Your task to perform on an android device: Open network settings Image 0: 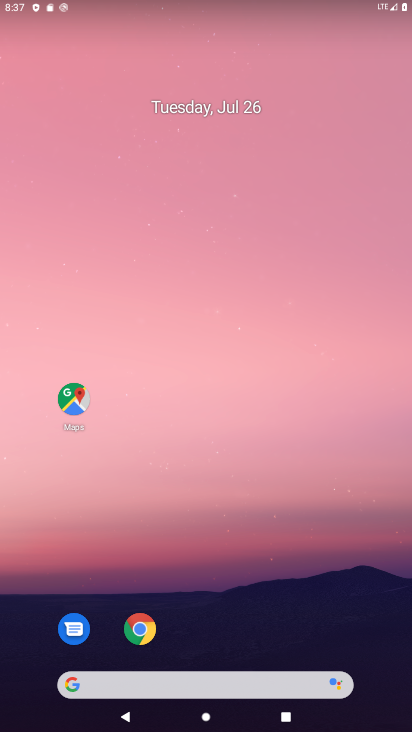
Step 0: drag from (211, 647) to (191, 117)
Your task to perform on an android device: Open network settings Image 1: 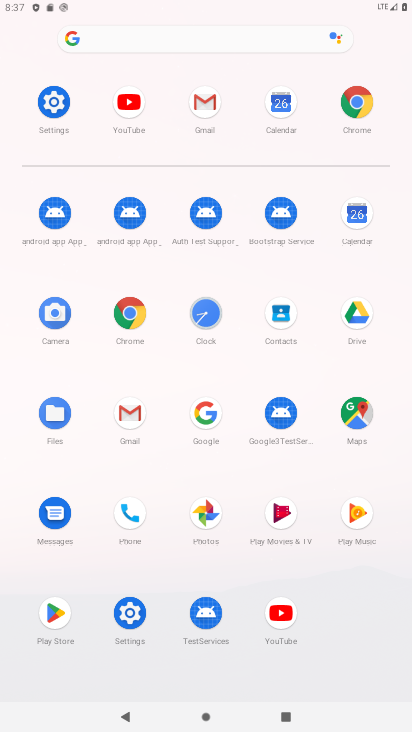
Step 1: click (54, 109)
Your task to perform on an android device: Open network settings Image 2: 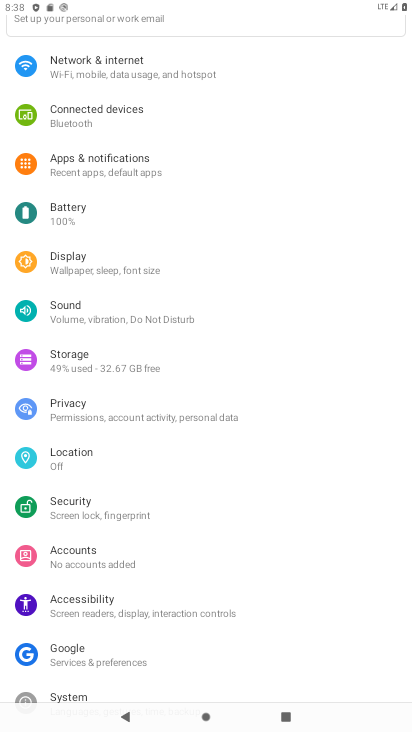
Step 2: click (157, 70)
Your task to perform on an android device: Open network settings Image 3: 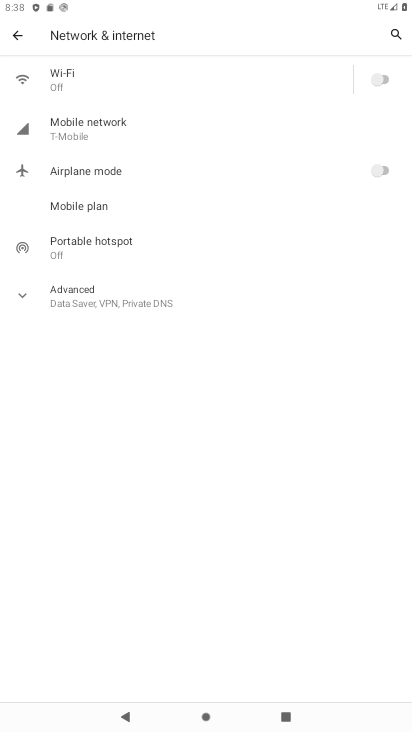
Step 3: click (101, 131)
Your task to perform on an android device: Open network settings Image 4: 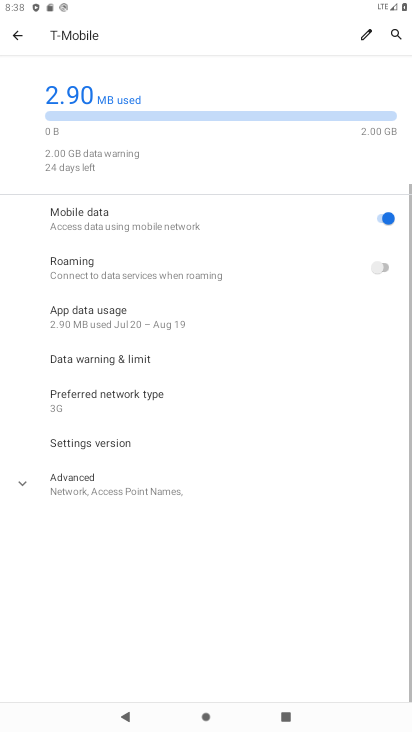
Step 4: task complete